Your task to perform on an android device: What's the weather going to be tomorrow? Image 0: 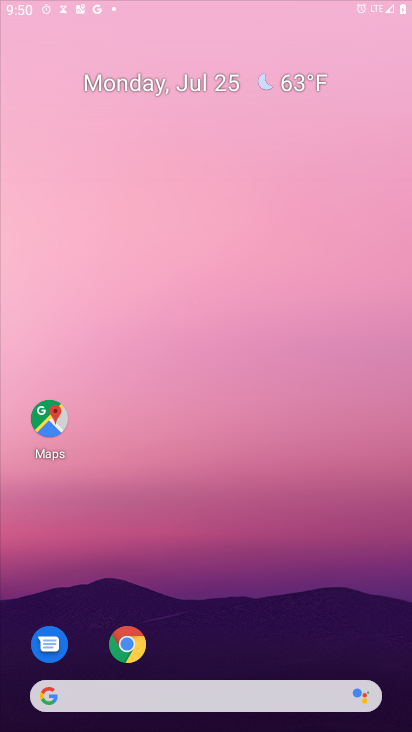
Step 0: click (180, 259)
Your task to perform on an android device: What's the weather going to be tomorrow? Image 1: 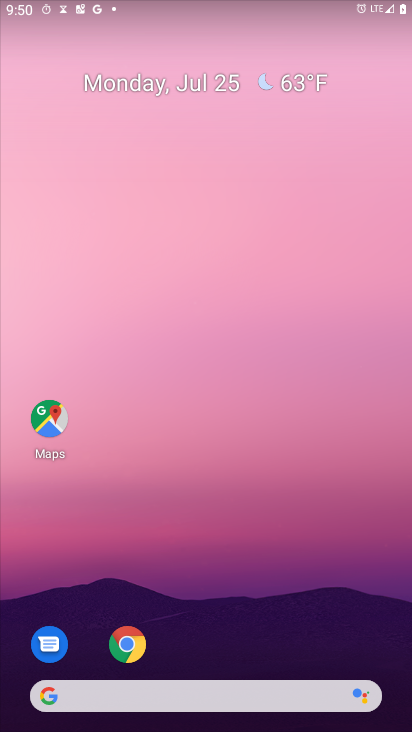
Step 1: drag from (267, 616) to (252, 201)
Your task to perform on an android device: What's the weather going to be tomorrow? Image 2: 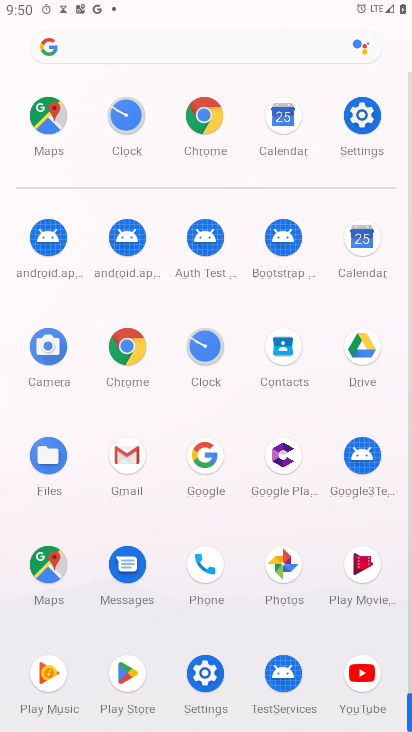
Step 2: drag from (220, 621) to (200, 229)
Your task to perform on an android device: What's the weather going to be tomorrow? Image 3: 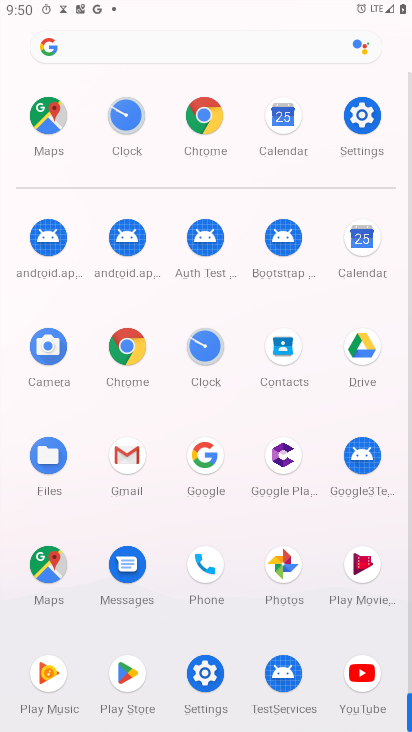
Step 3: click (201, 118)
Your task to perform on an android device: What's the weather going to be tomorrow? Image 4: 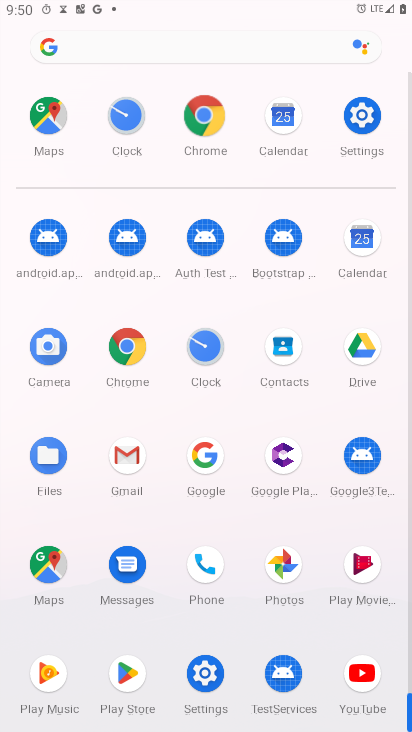
Step 4: click (206, 112)
Your task to perform on an android device: What's the weather going to be tomorrow? Image 5: 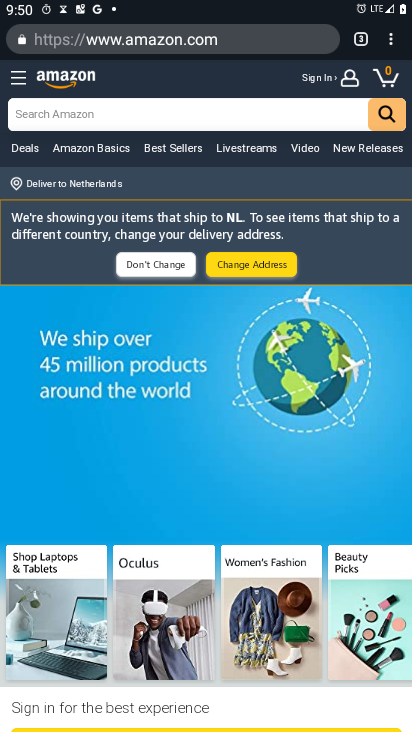
Step 5: drag from (392, 42) to (240, 82)
Your task to perform on an android device: What's the weather going to be tomorrow? Image 6: 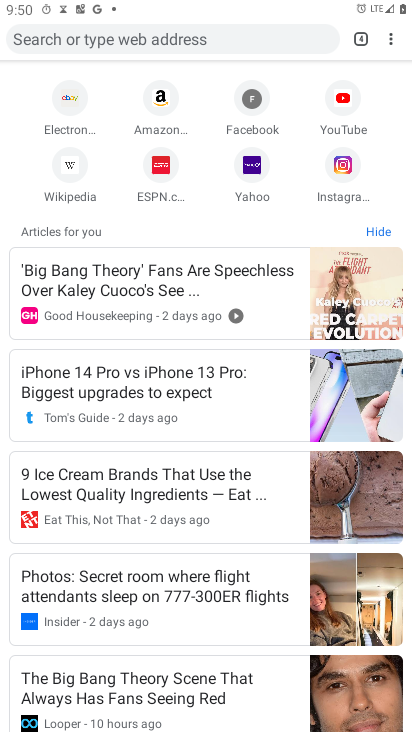
Step 6: click (42, 36)
Your task to perform on an android device: What's the weather going to be tomorrow? Image 7: 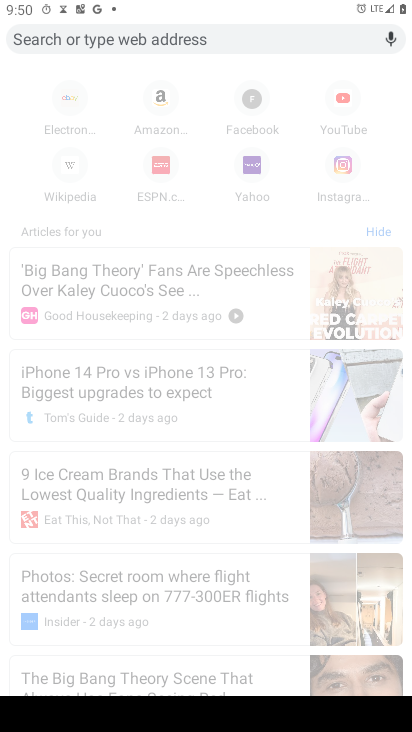
Step 7: type "What's the weather going to be tomorrow?"
Your task to perform on an android device: What's the weather going to be tomorrow? Image 8: 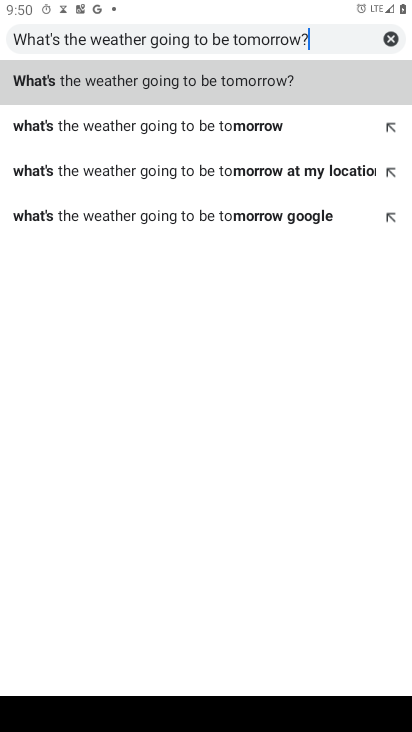
Step 8: click (258, 78)
Your task to perform on an android device: What's the weather going to be tomorrow? Image 9: 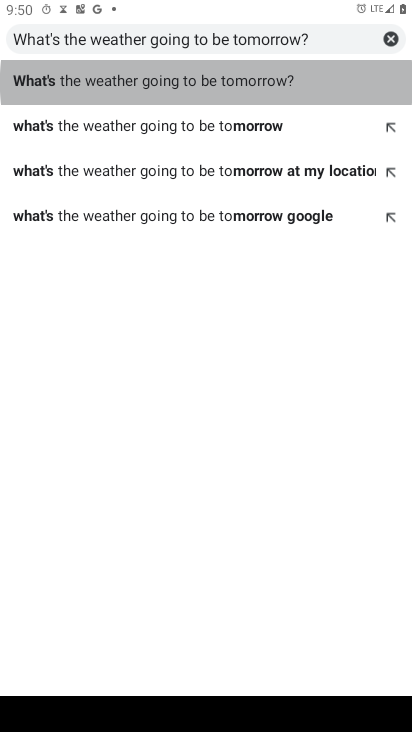
Step 9: click (263, 77)
Your task to perform on an android device: What's the weather going to be tomorrow? Image 10: 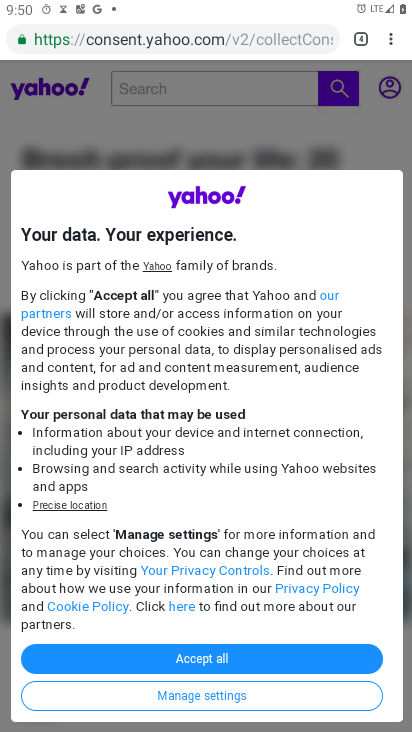
Step 10: task complete